Your task to perform on an android device: Open Google Chrome and open the bookmarks view Image 0: 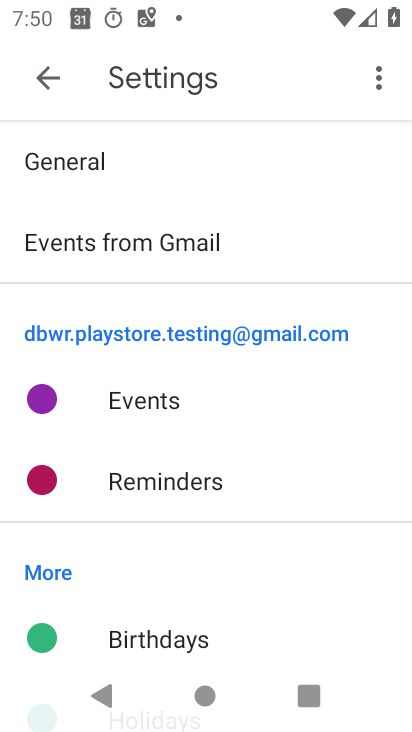
Step 0: press home button
Your task to perform on an android device: Open Google Chrome and open the bookmarks view Image 1: 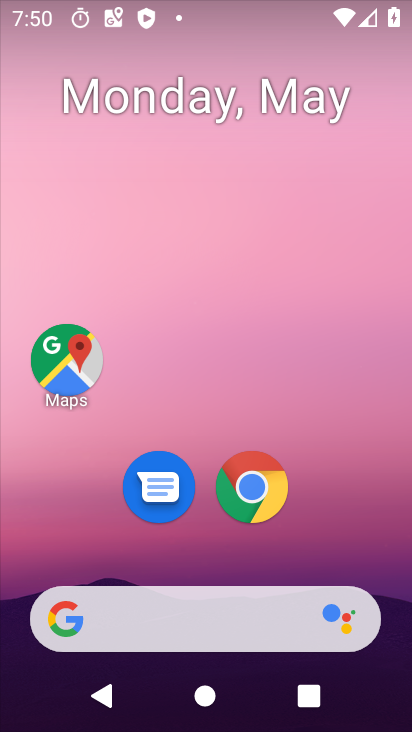
Step 1: drag from (237, 655) to (218, 46)
Your task to perform on an android device: Open Google Chrome and open the bookmarks view Image 2: 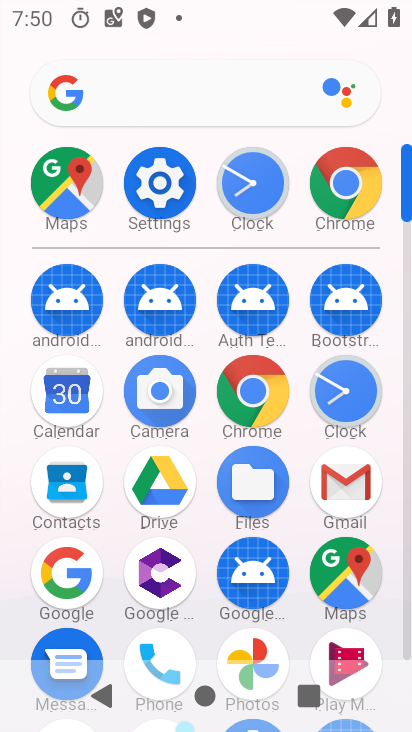
Step 2: click (349, 184)
Your task to perform on an android device: Open Google Chrome and open the bookmarks view Image 3: 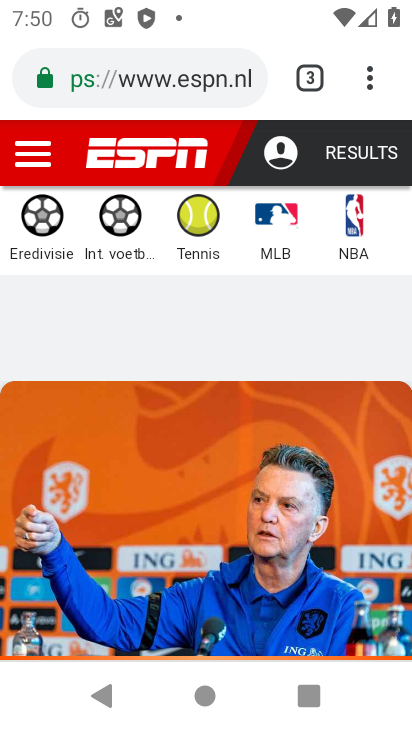
Step 3: click (370, 76)
Your task to perform on an android device: Open Google Chrome and open the bookmarks view Image 4: 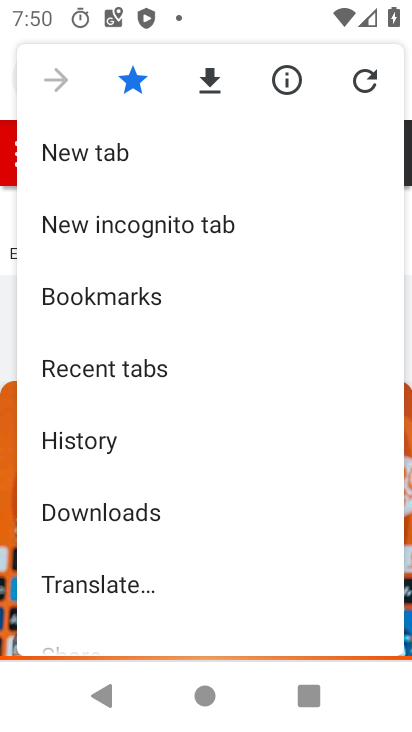
Step 4: click (126, 299)
Your task to perform on an android device: Open Google Chrome and open the bookmarks view Image 5: 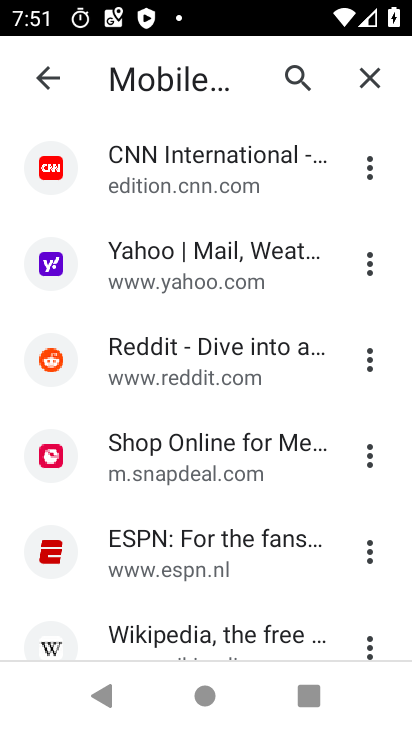
Step 5: task complete